Your task to perform on an android device: turn vacation reply on in the gmail app Image 0: 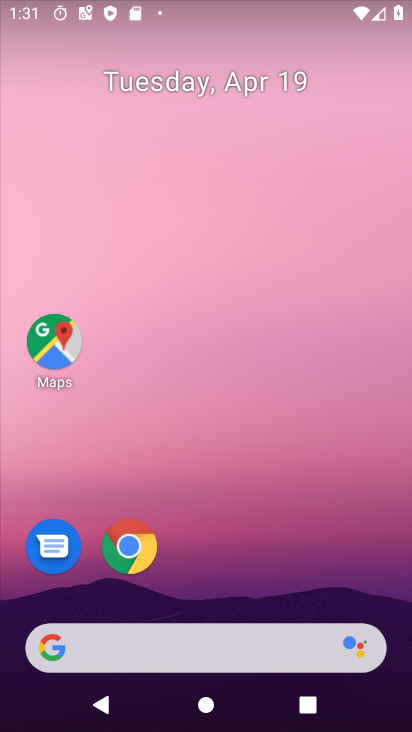
Step 0: drag from (165, 594) to (211, 50)
Your task to perform on an android device: turn vacation reply on in the gmail app Image 1: 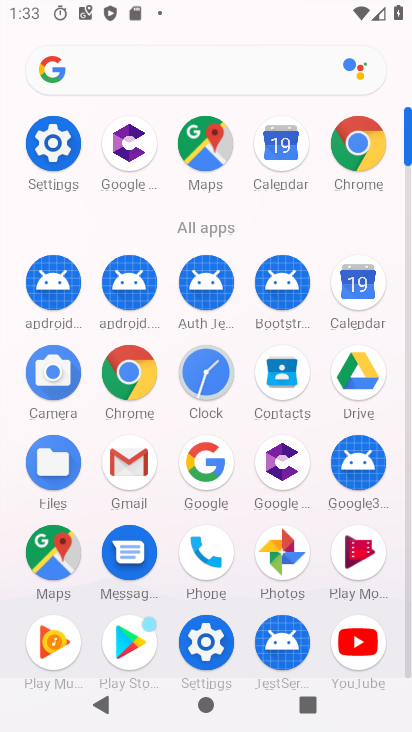
Step 1: click (133, 459)
Your task to perform on an android device: turn vacation reply on in the gmail app Image 2: 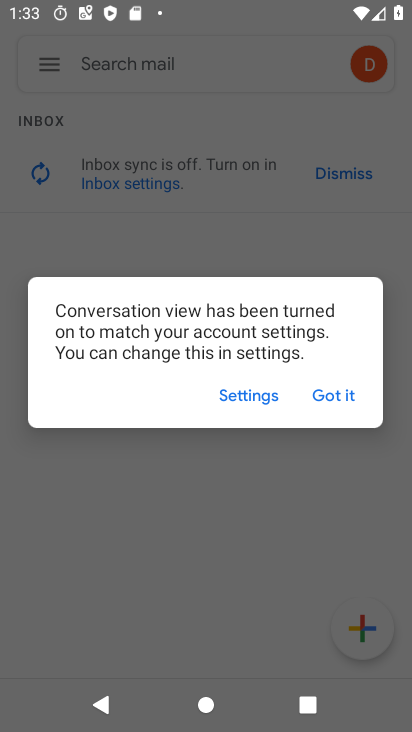
Step 2: click (334, 382)
Your task to perform on an android device: turn vacation reply on in the gmail app Image 3: 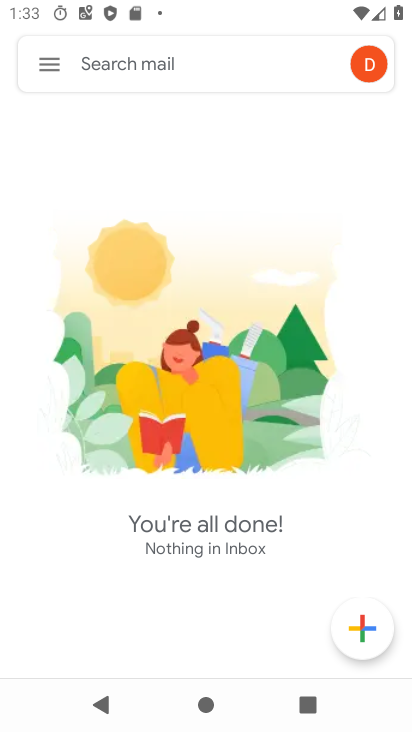
Step 3: click (52, 56)
Your task to perform on an android device: turn vacation reply on in the gmail app Image 4: 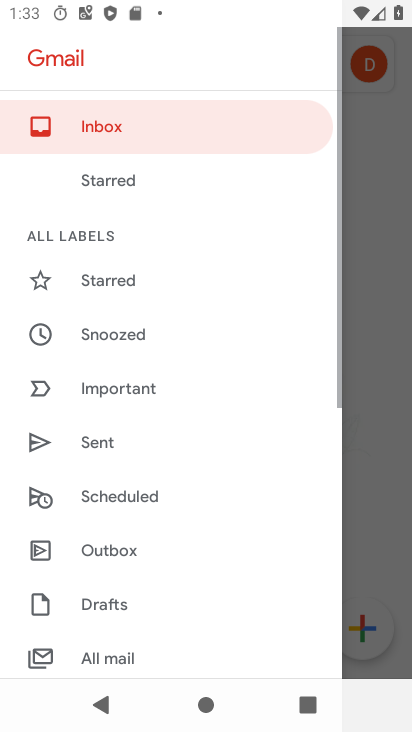
Step 4: drag from (111, 622) to (256, 148)
Your task to perform on an android device: turn vacation reply on in the gmail app Image 5: 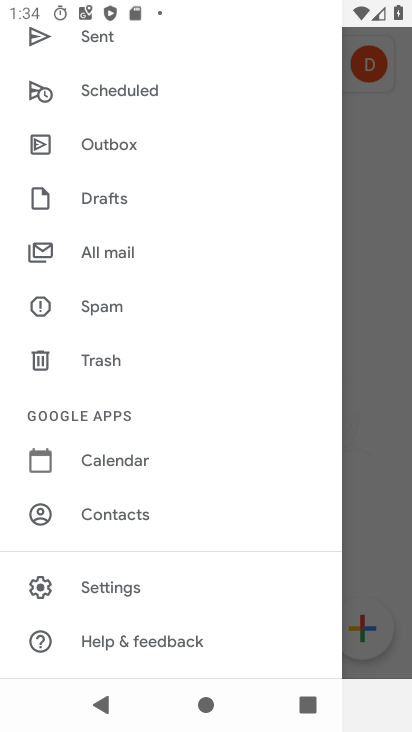
Step 5: click (93, 586)
Your task to perform on an android device: turn vacation reply on in the gmail app Image 6: 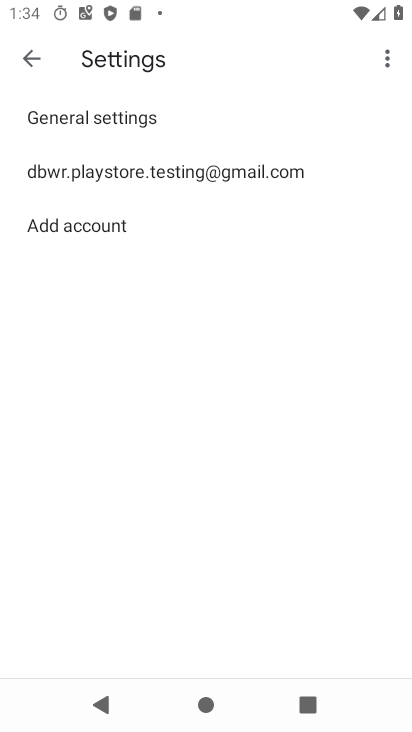
Step 6: click (92, 176)
Your task to perform on an android device: turn vacation reply on in the gmail app Image 7: 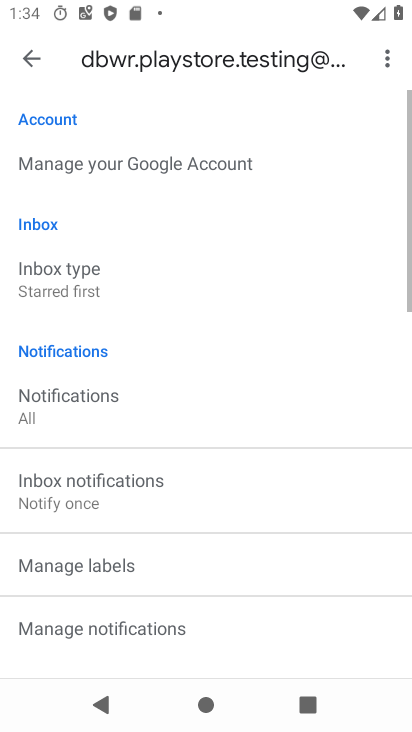
Step 7: drag from (136, 601) to (233, 79)
Your task to perform on an android device: turn vacation reply on in the gmail app Image 8: 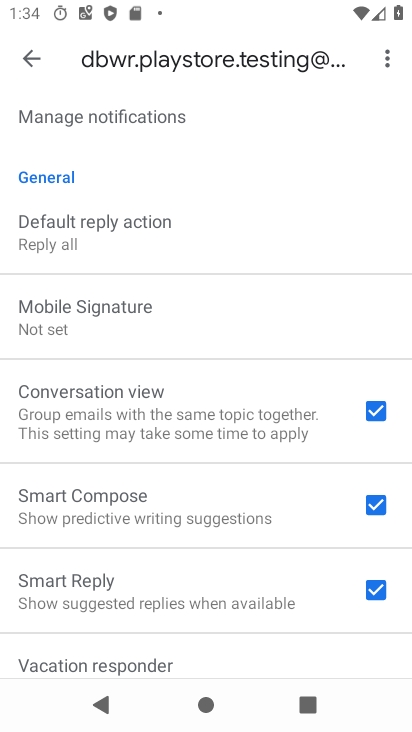
Step 8: drag from (165, 451) to (217, 232)
Your task to perform on an android device: turn vacation reply on in the gmail app Image 9: 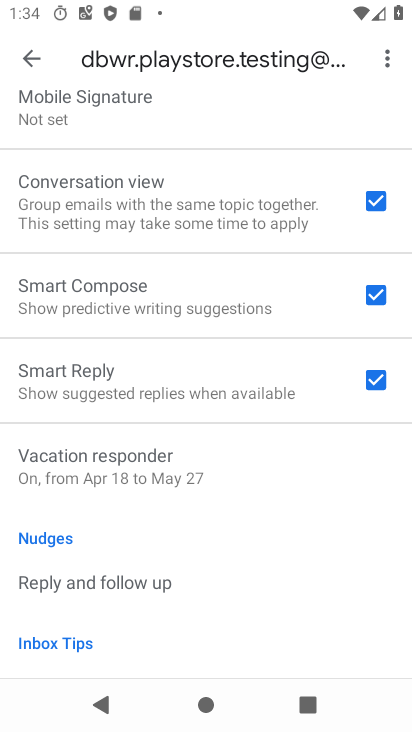
Step 9: click (93, 461)
Your task to perform on an android device: turn vacation reply on in the gmail app Image 10: 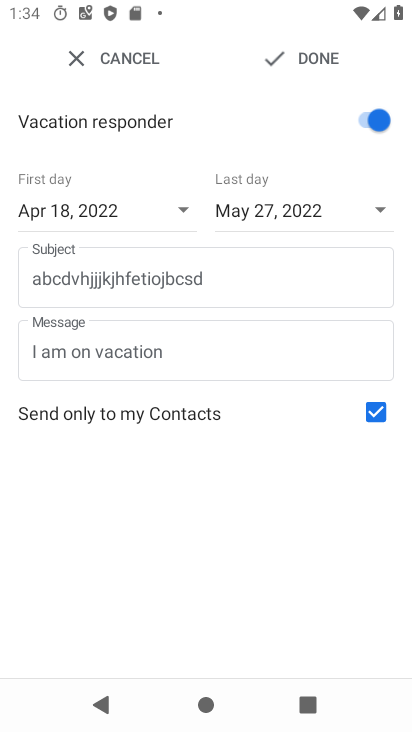
Step 10: task complete